Your task to perform on an android device: change the clock display to show seconds Image 0: 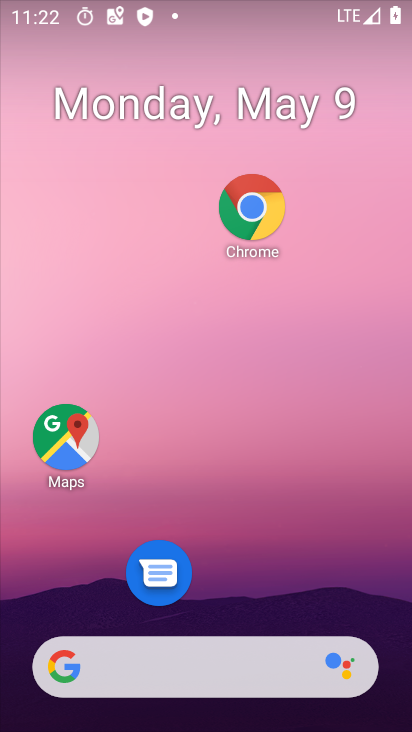
Step 0: drag from (276, 586) to (287, 326)
Your task to perform on an android device: change the clock display to show seconds Image 1: 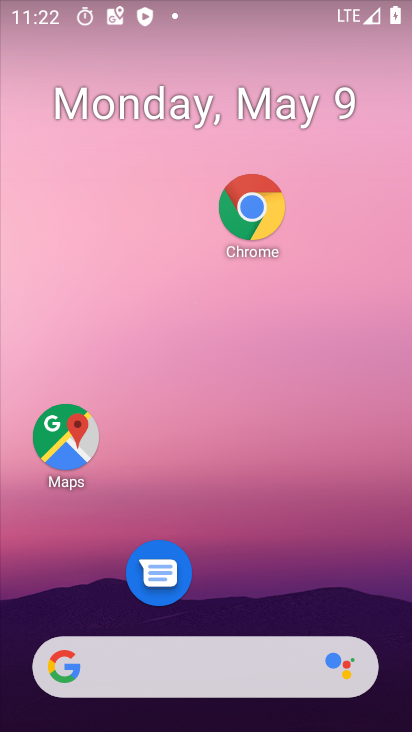
Step 1: drag from (284, 577) to (274, 223)
Your task to perform on an android device: change the clock display to show seconds Image 2: 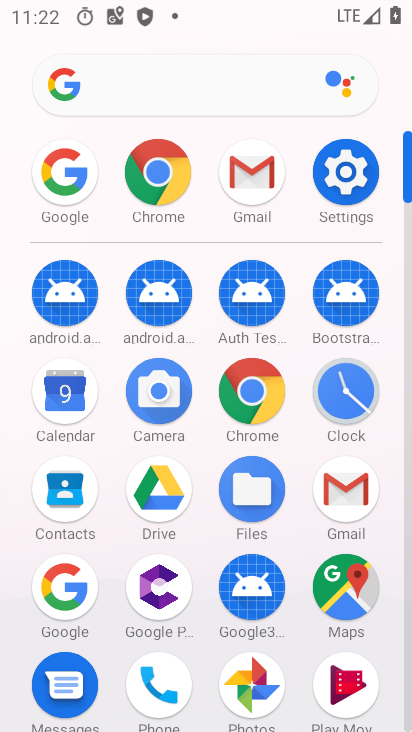
Step 2: click (345, 379)
Your task to perform on an android device: change the clock display to show seconds Image 3: 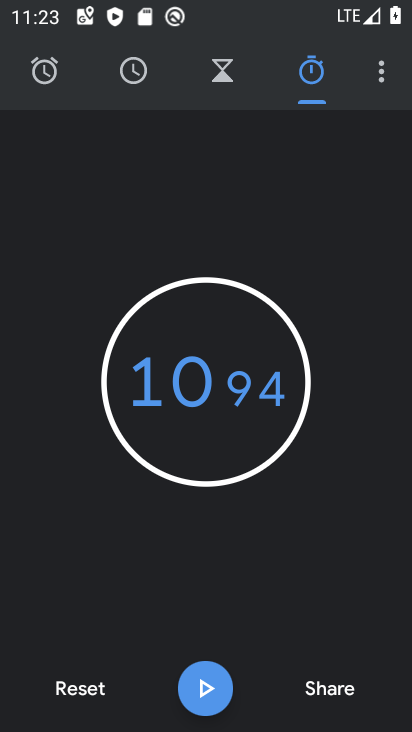
Step 3: click (389, 88)
Your task to perform on an android device: change the clock display to show seconds Image 4: 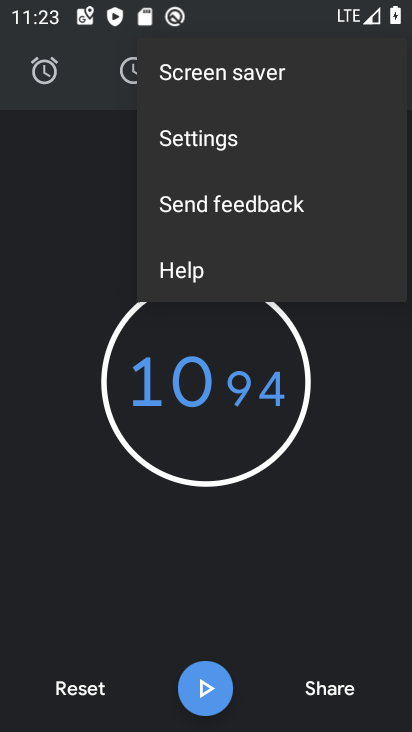
Step 4: click (212, 155)
Your task to perform on an android device: change the clock display to show seconds Image 5: 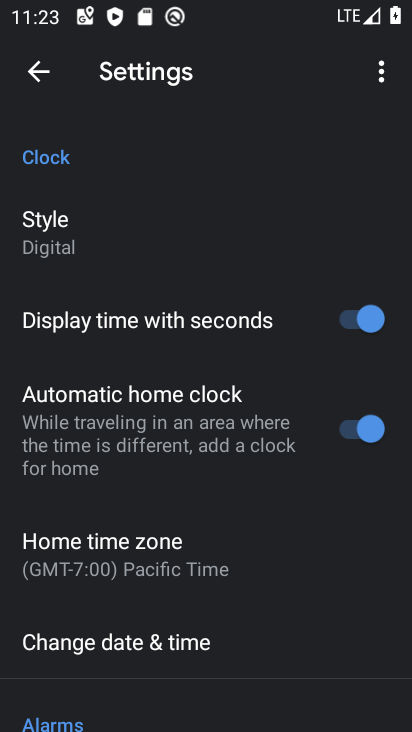
Step 5: task complete